Your task to perform on an android device: set an alarm Image 0: 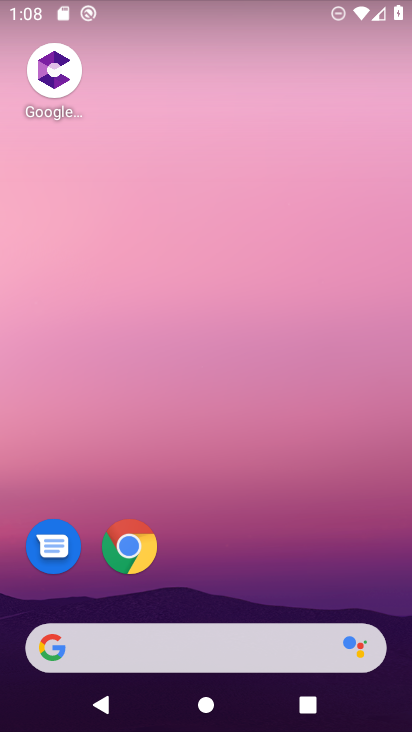
Step 0: drag from (162, 620) to (166, 297)
Your task to perform on an android device: set an alarm Image 1: 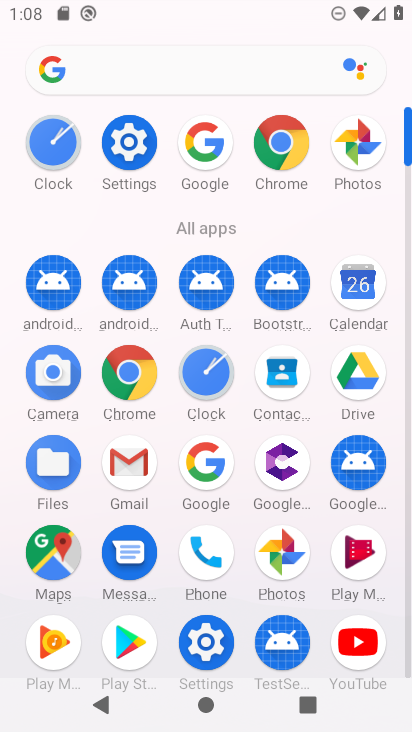
Step 1: click (216, 370)
Your task to perform on an android device: set an alarm Image 2: 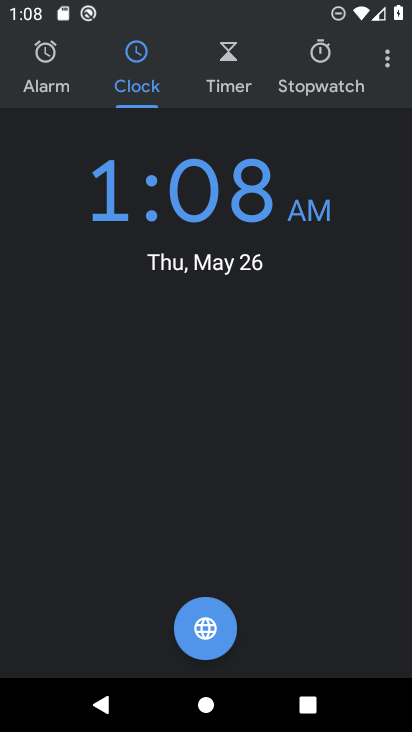
Step 2: click (52, 80)
Your task to perform on an android device: set an alarm Image 3: 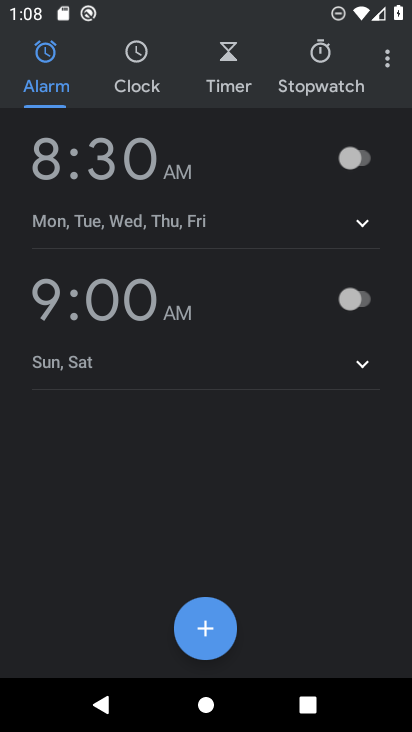
Step 3: click (351, 159)
Your task to perform on an android device: set an alarm Image 4: 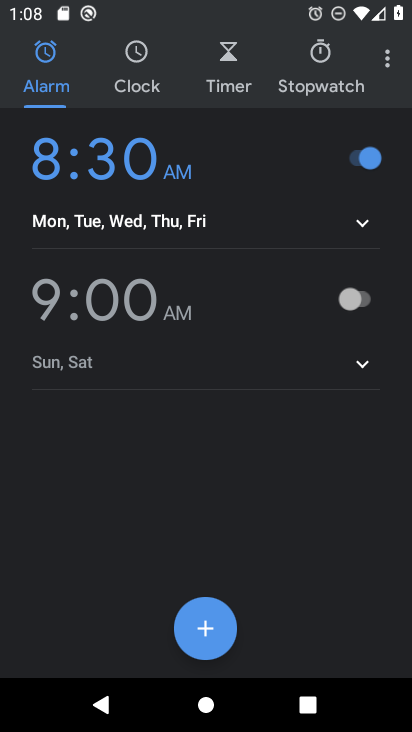
Step 4: task complete